Your task to perform on an android device: turn on airplane mode Image 0: 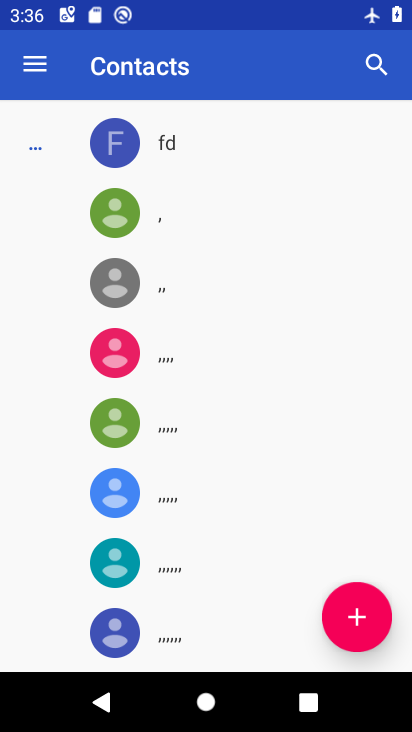
Step 0: press home button
Your task to perform on an android device: turn on airplane mode Image 1: 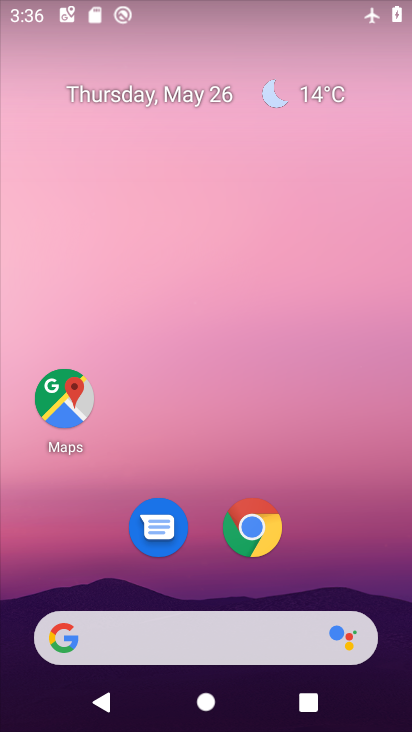
Step 1: drag from (368, 542) to (280, 237)
Your task to perform on an android device: turn on airplane mode Image 2: 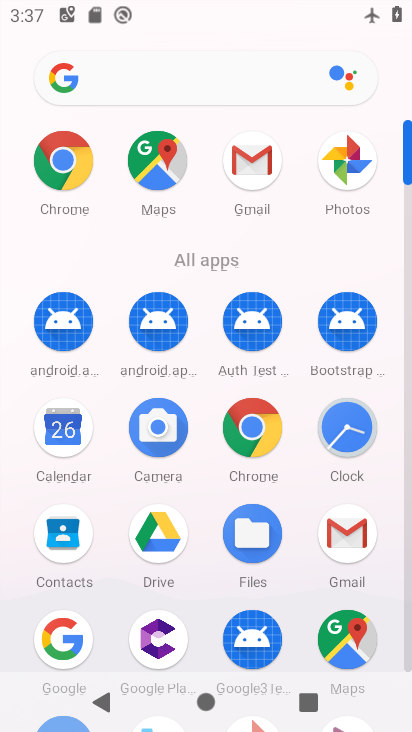
Step 2: click (404, 664)
Your task to perform on an android device: turn on airplane mode Image 3: 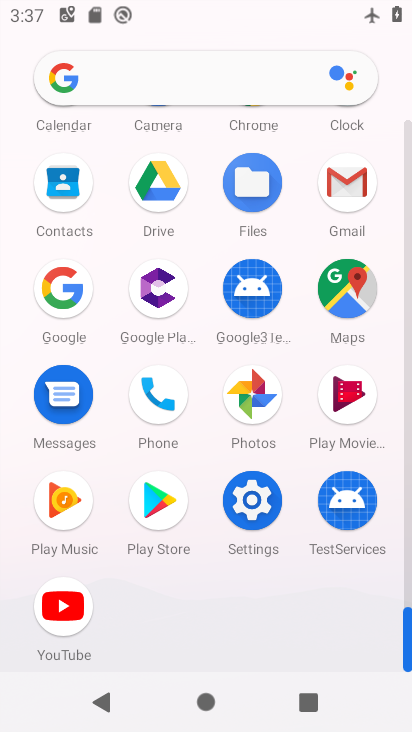
Step 3: click (404, 664)
Your task to perform on an android device: turn on airplane mode Image 4: 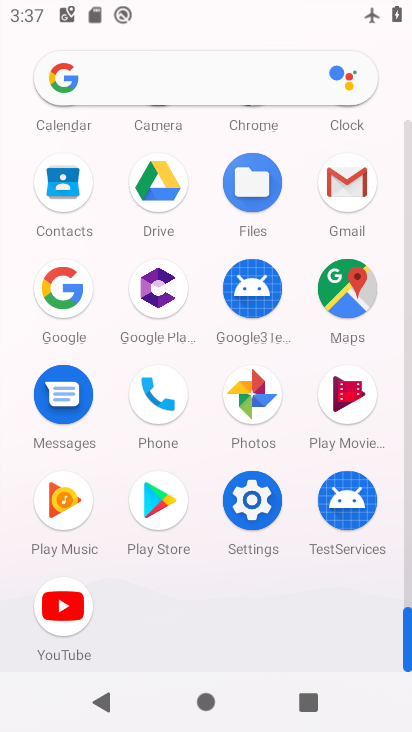
Step 4: click (259, 537)
Your task to perform on an android device: turn on airplane mode Image 5: 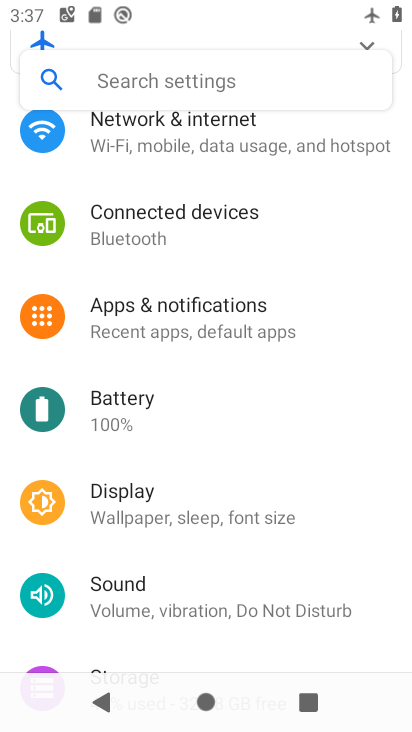
Step 5: click (295, 159)
Your task to perform on an android device: turn on airplane mode Image 6: 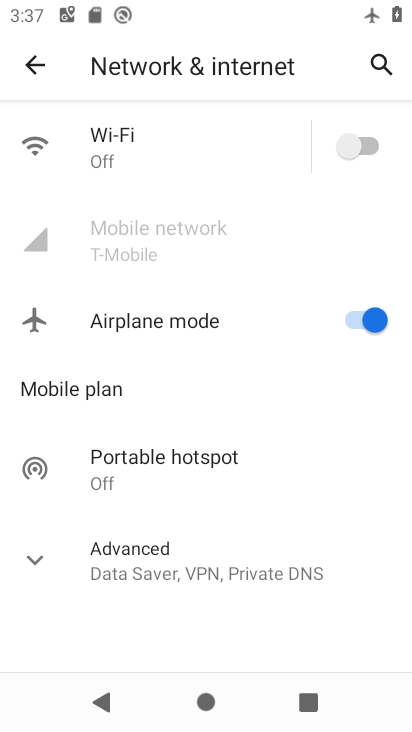
Step 6: task complete